Your task to perform on an android device: Open battery settings Image 0: 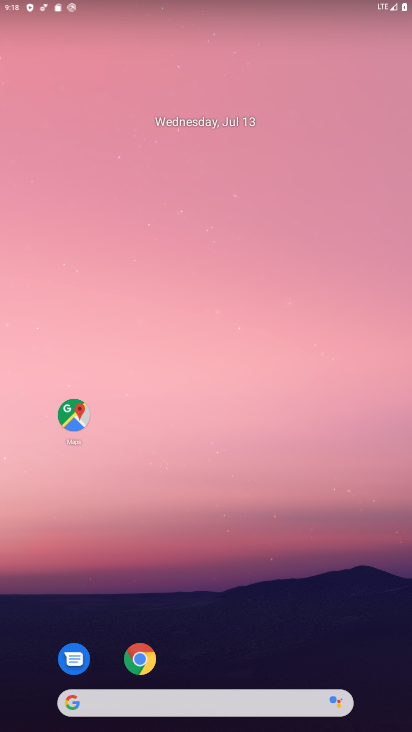
Step 0: drag from (370, 663) to (366, 204)
Your task to perform on an android device: Open battery settings Image 1: 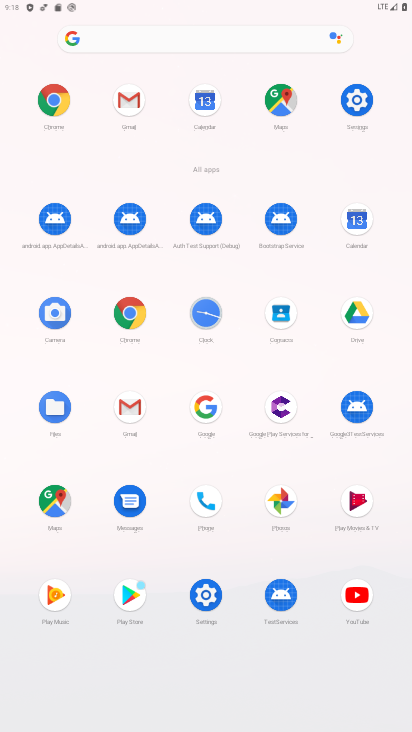
Step 1: click (205, 595)
Your task to perform on an android device: Open battery settings Image 2: 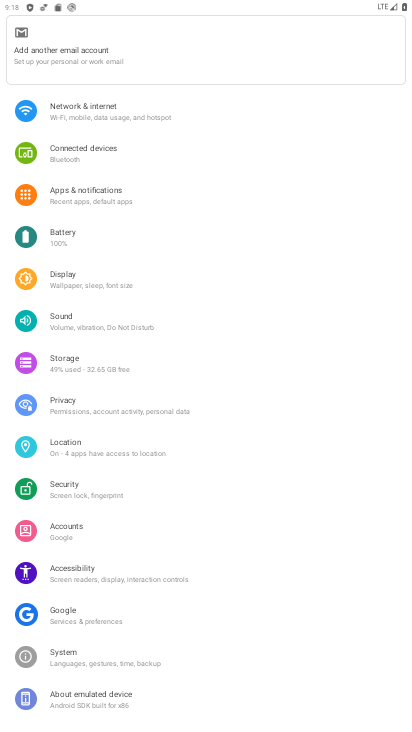
Step 2: click (61, 233)
Your task to perform on an android device: Open battery settings Image 3: 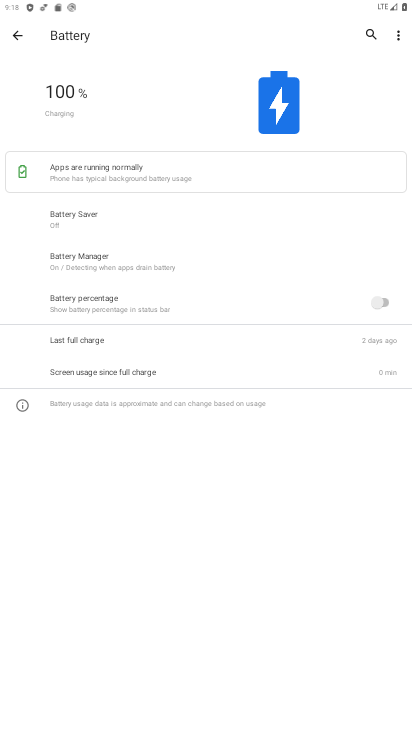
Step 3: task complete